Your task to perform on an android device: turn off airplane mode Image 0: 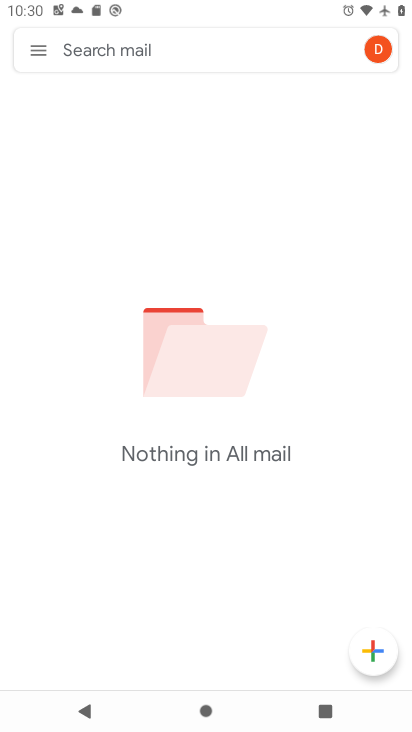
Step 0: press home button
Your task to perform on an android device: turn off airplane mode Image 1: 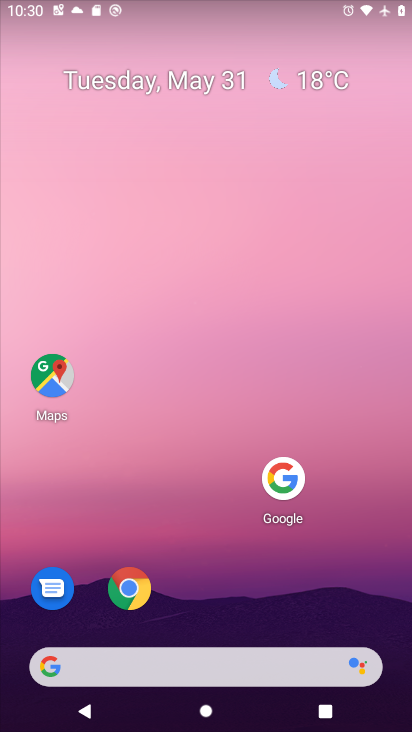
Step 1: drag from (172, 673) to (280, 107)
Your task to perform on an android device: turn off airplane mode Image 2: 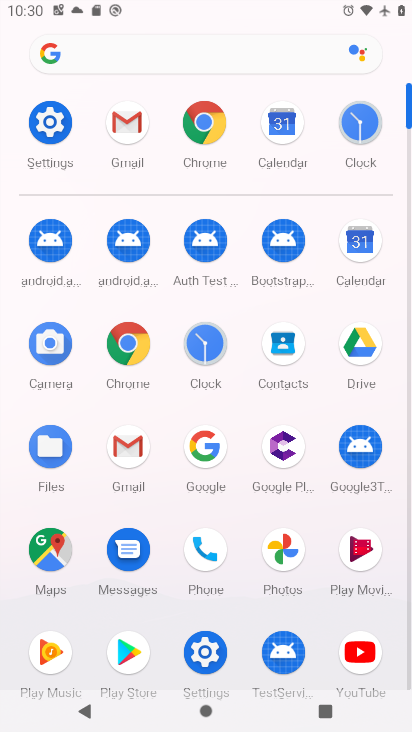
Step 2: click (50, 118)
Your task to perform on an android device: turn off airplane mode Image 3: 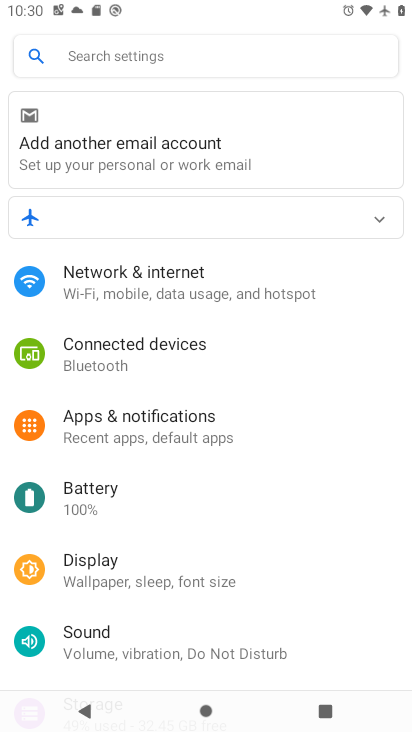
Step 3: click (188, 280)
Your task to perform on an android device: turn off airplane mode Image 4: 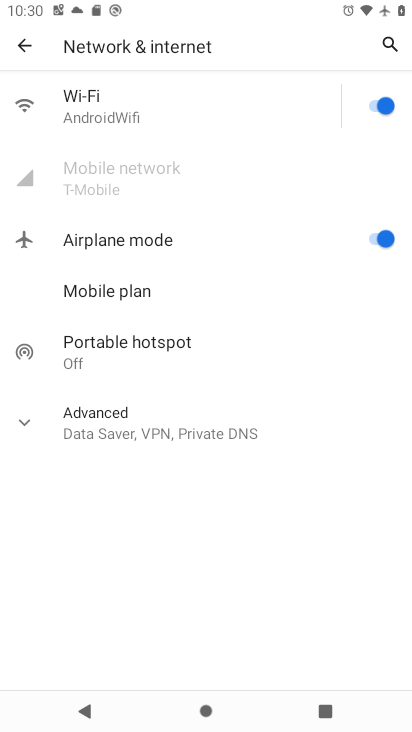
Step 4: click (378, 233)
Your task to perform on an android device: turn off airplane mode Image 5: 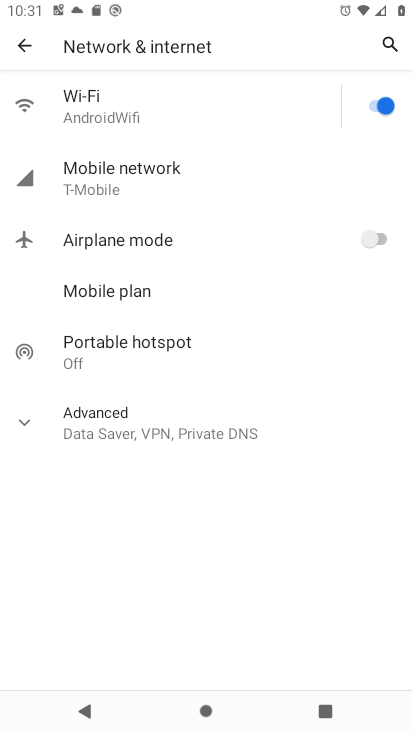
Step 5: task complete